Your task to perform on an android device: turn on bluetooth scan Image 0: 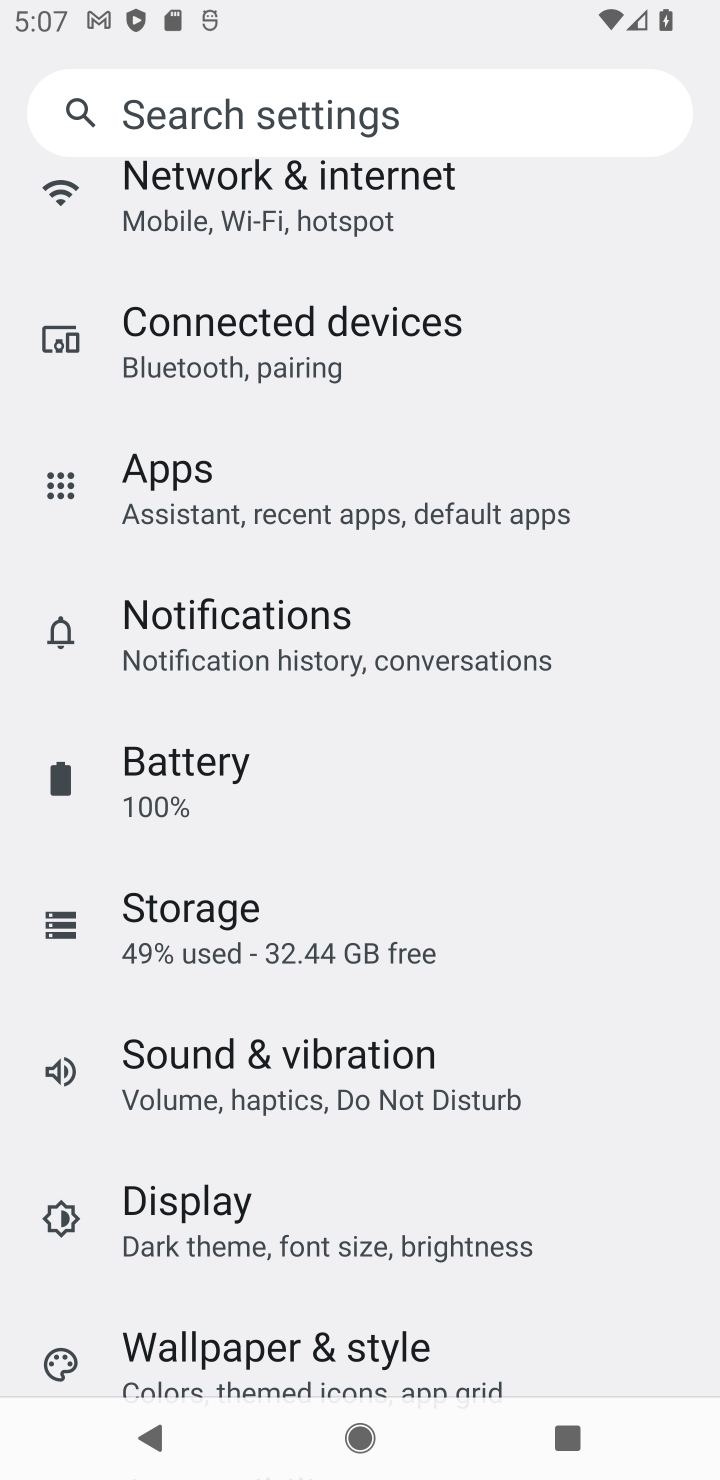
Step 0: drag from (293, 1315) to (286, 545)
Your task to perform on an android device: turn on bluetooth scan Image 1: 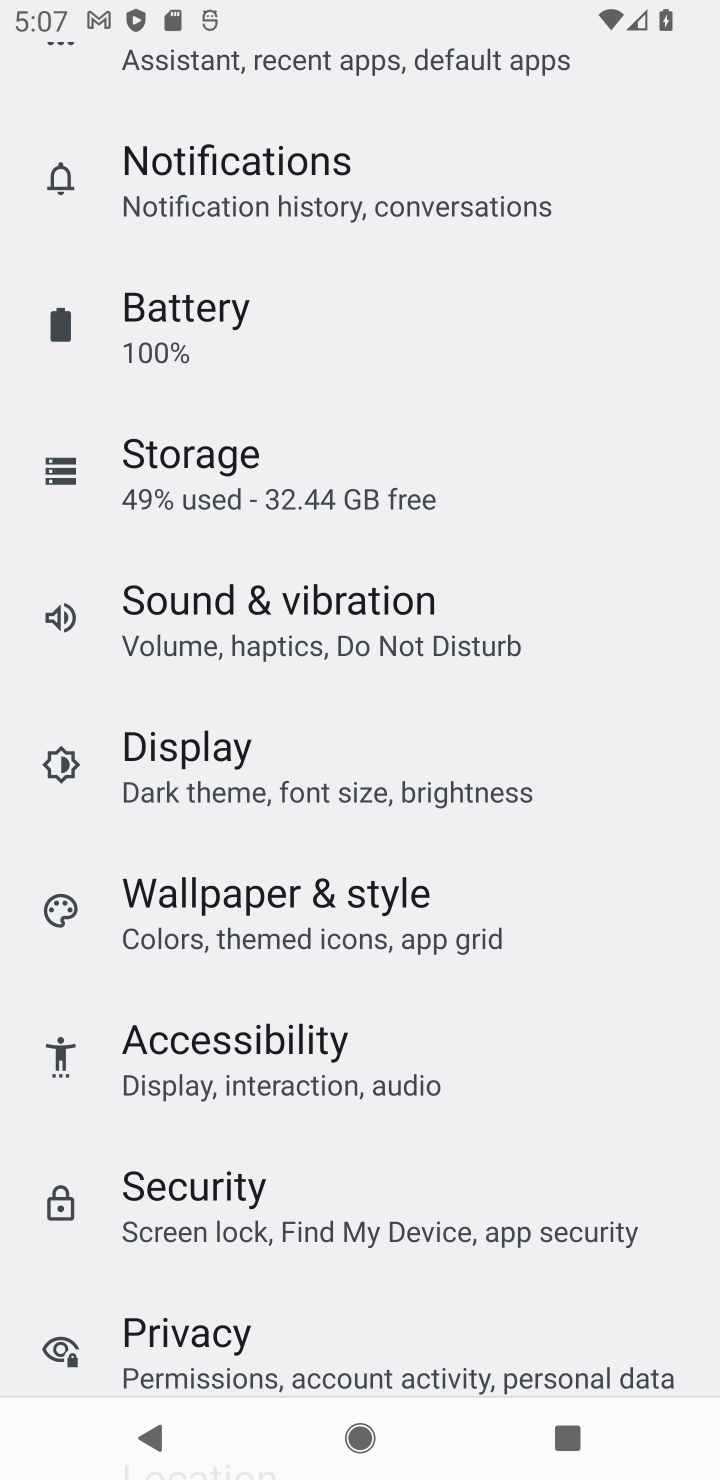
Step 1: drag from (447, 1306) to (389, 691)
Your task to perform on an android device: turn on bluetooth scan Image 2: 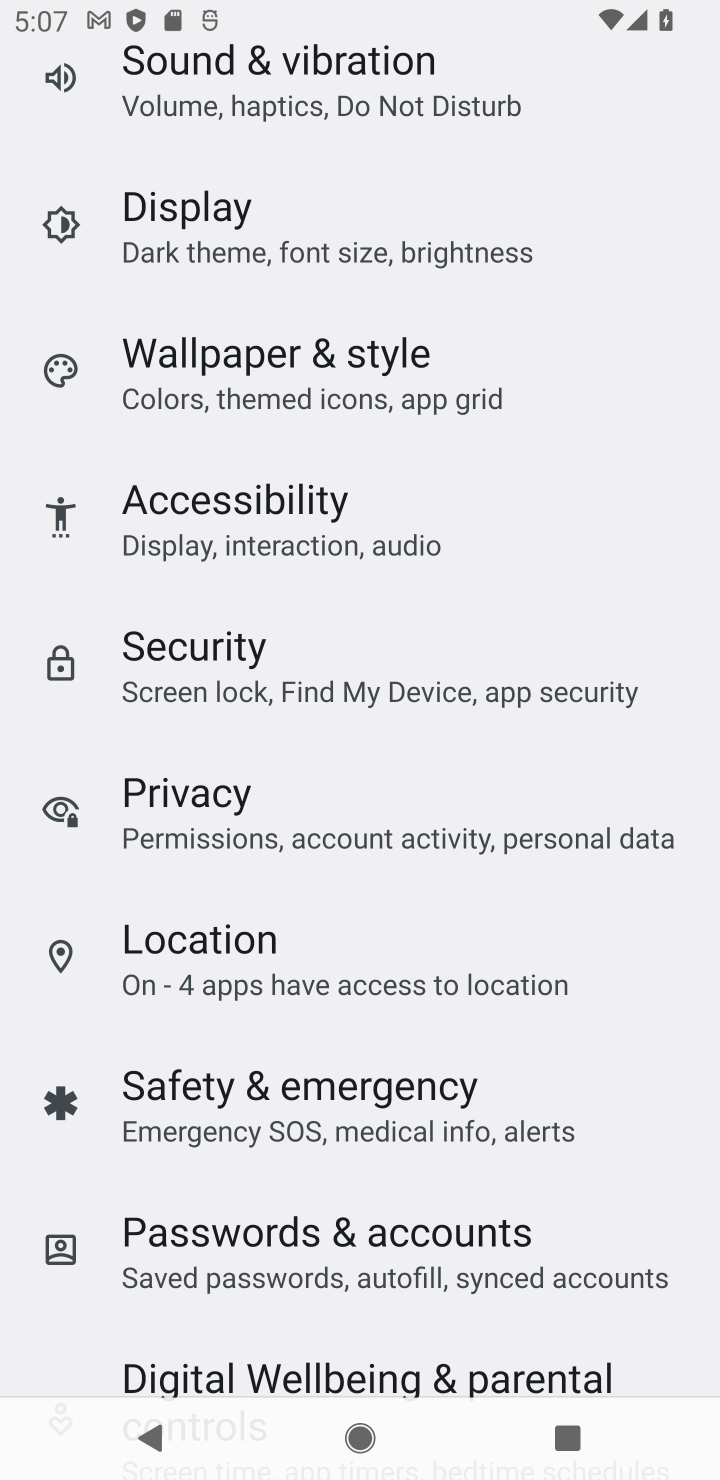
Step 2: click (388, 981)
Your task to perform on an android device: turn on bluetooth scan Image 3: 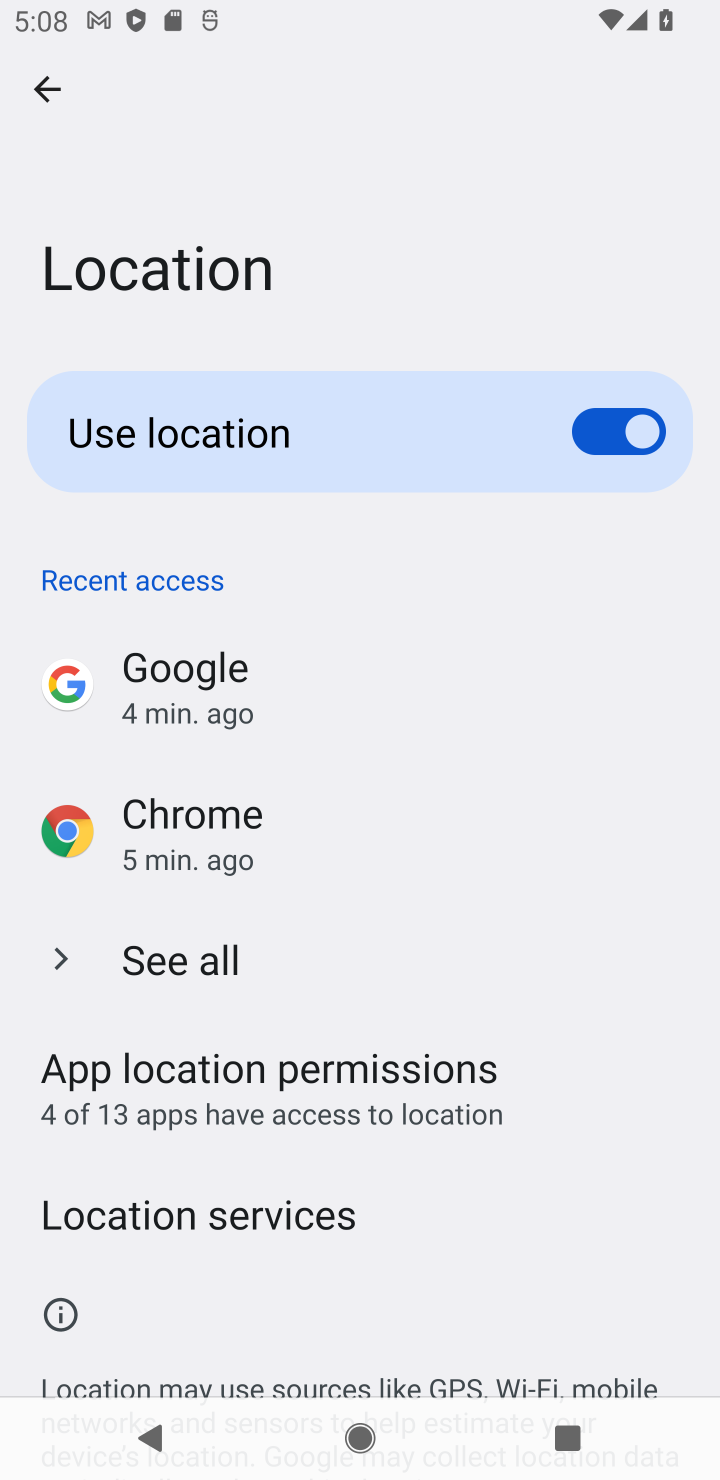
Step 3: task complete